Your task to perform on an android device: Go to ESPN.com Image 0: 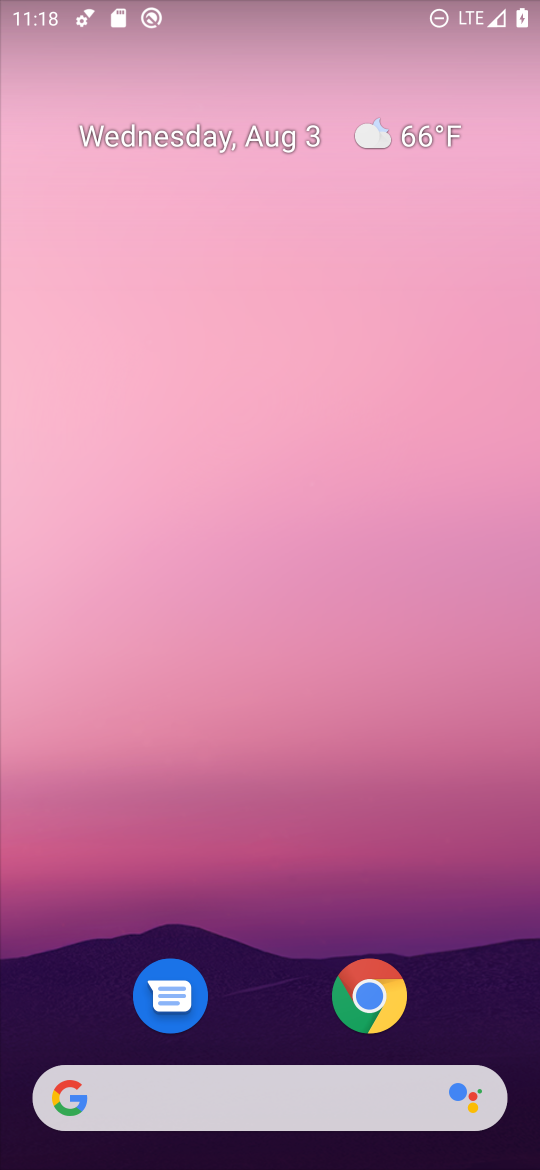
Step 0: click (345, 1104)
Your task to perform on an android device: Go to ESPN.com Image 1: 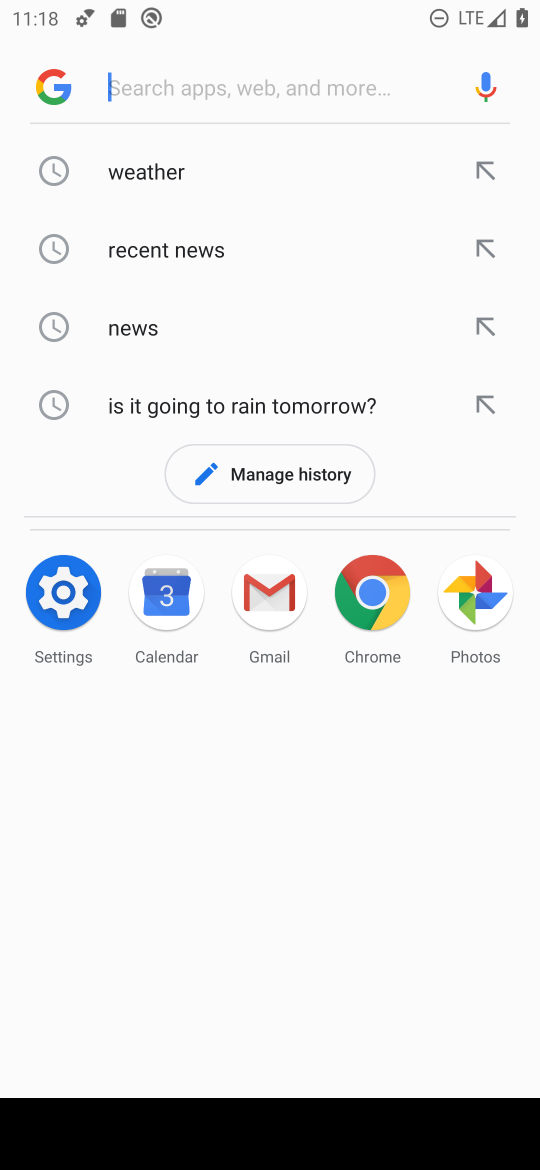
Step 1: type "espn.com"
Your task to perform on an android device: Go to ESPN.com Image 2: 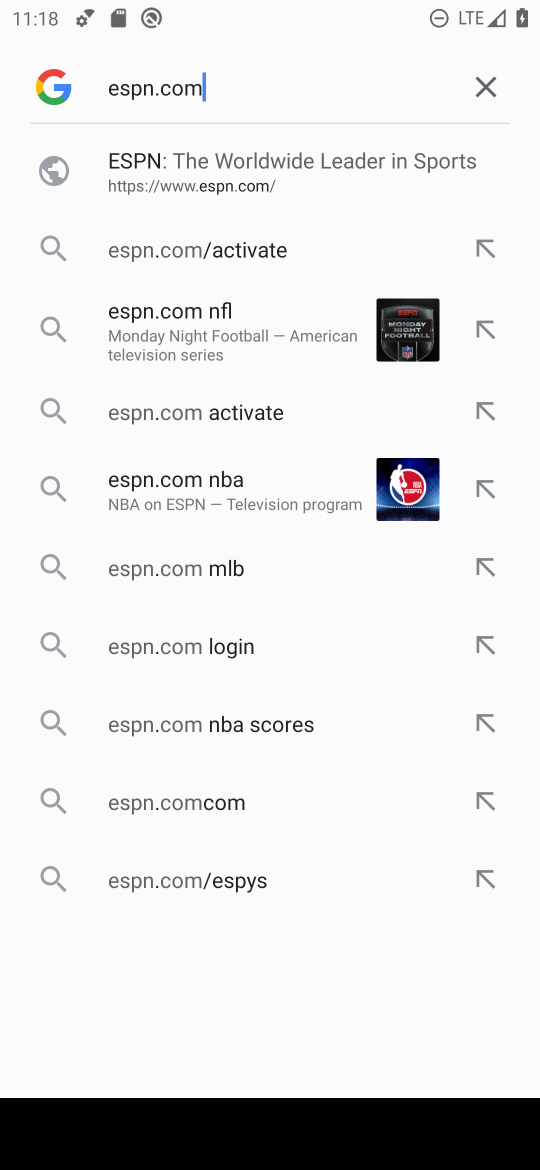
Step 2: click (339, 167)
Your task to perform on an android device: Go to ESPN.com Image 3: 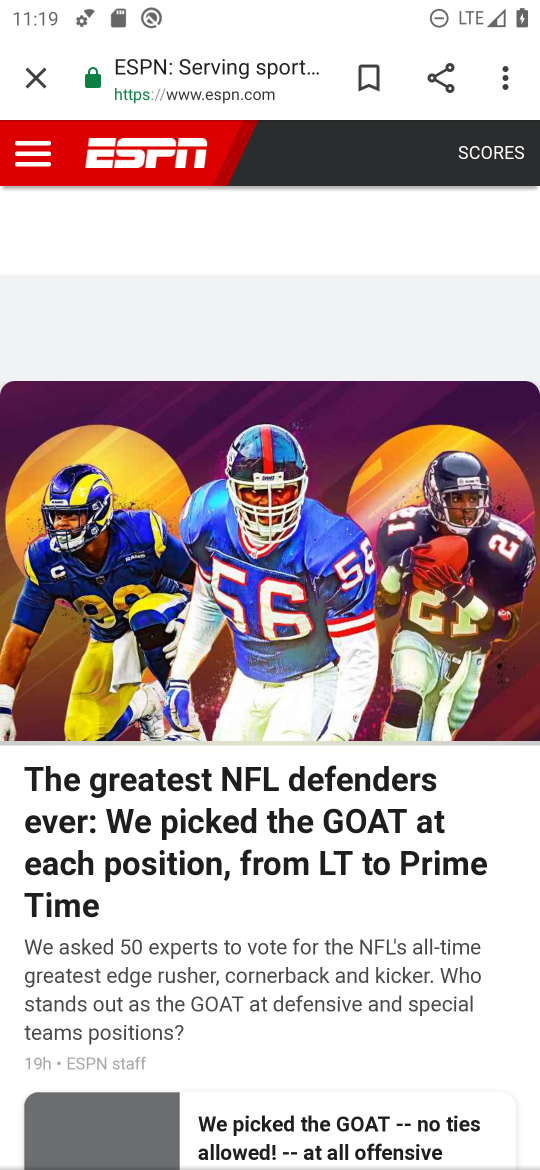
Step 3: task complete